Your task to perform on an android device: Go to Google Image 0: 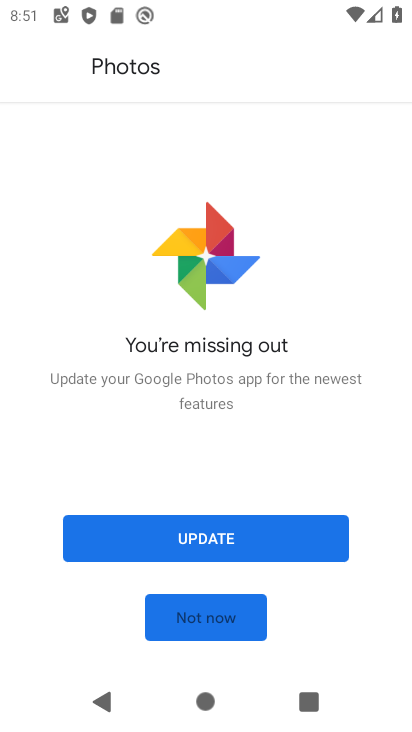
Step 0: press home button
Your task to perform on an android device: Go to Google Image 1: 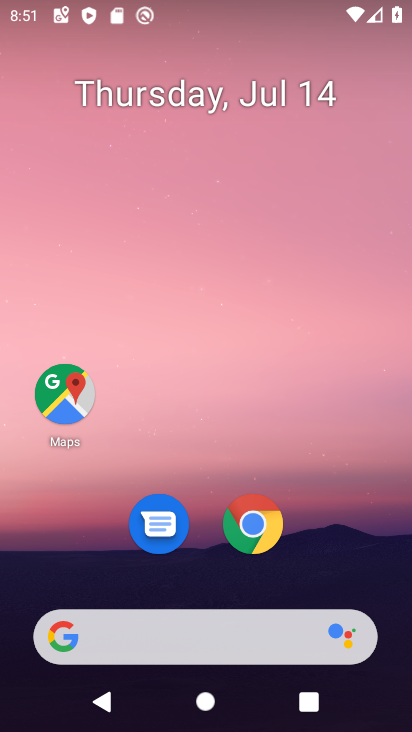
Step 1: drag from (243, 394) to (283, 2)
Your task to perform on an android device: Go to Google Image 2: 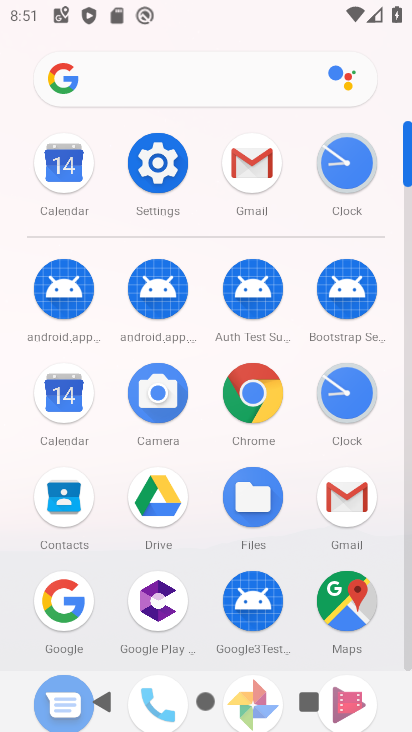
Step 2: drag from (191, 466) to (221, 344)
Your task to perform on an android device: Go to Google Image 3: 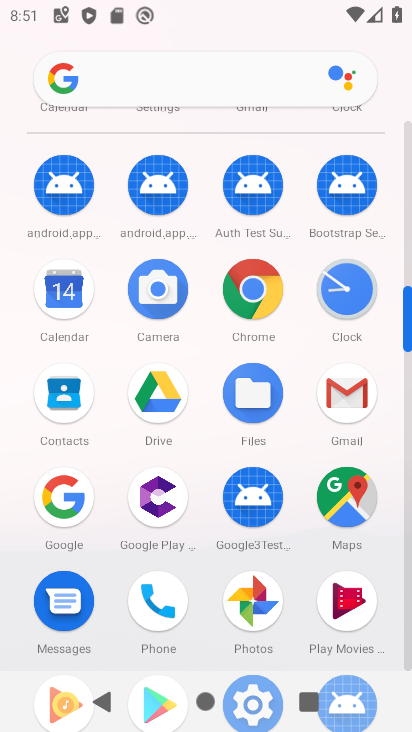
Step 3: click (72, 493)
Your task to perform on an android device: Go to Google Image 4: 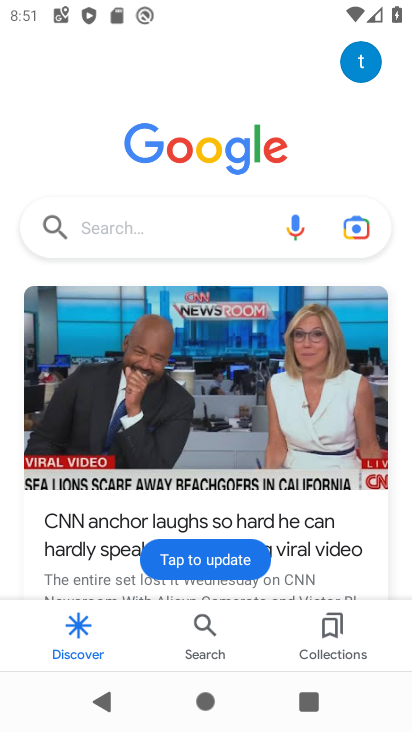
Step 4: task complete